Your task to perform on an android device: Open calendar and show me the second week of next month Image 0: 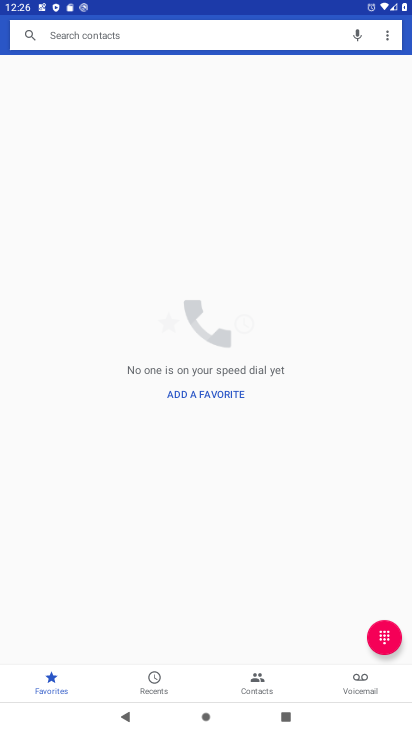
Step 0: press home button
Your task to perform on an android device: Open calendar and show me the second week of next month Image 1: 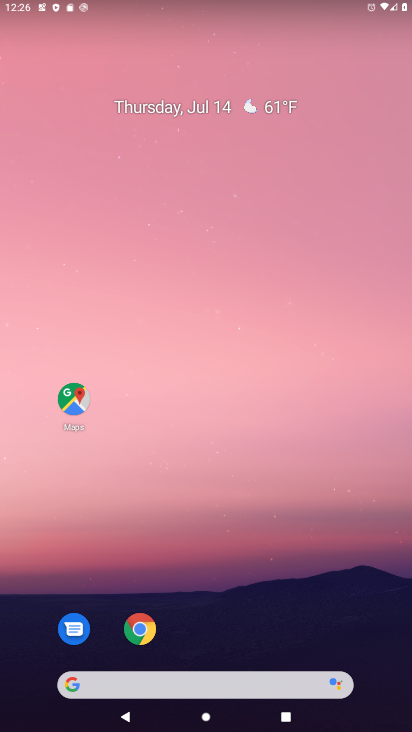
Step 1: drag from (262, 597) to (101, 43)
Your task to perform on an android device: Open calendar and show me the second week of next month Image 2: 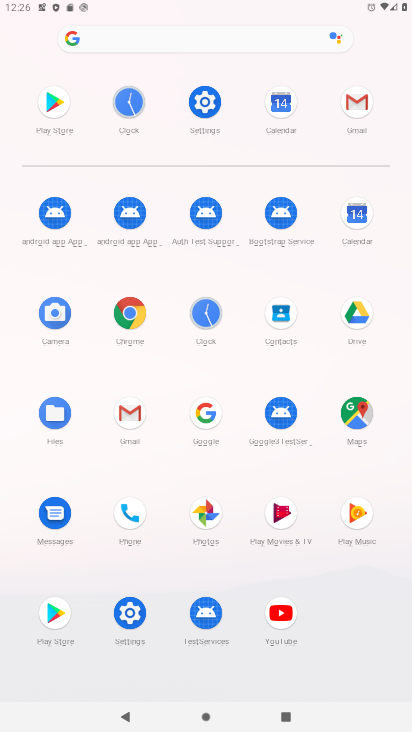
Step 2: click (354, 205)
Your task to perform on an android device: Open calendar and show me the second week of next month Image 3: 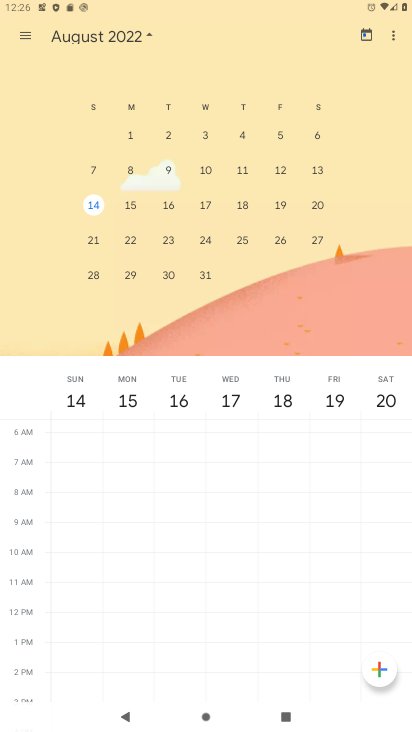
Step 3: click (124, 167)
Your task to perform on an android device: Open calendar and show me the second week of next month Image 4: 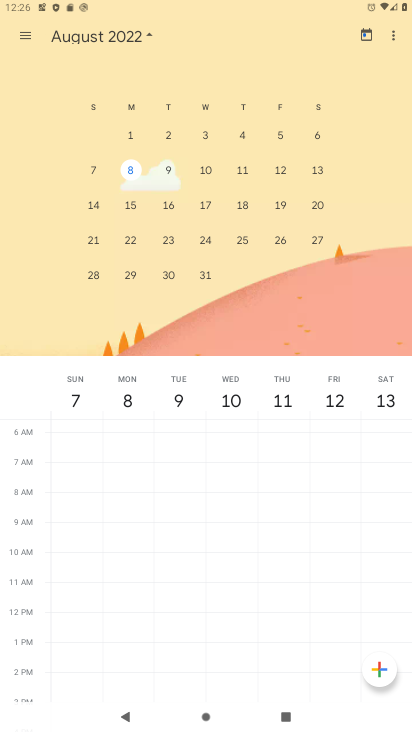
Step 4: task complete